Your task to perform on an android device: change the clock display to digital Image 0: 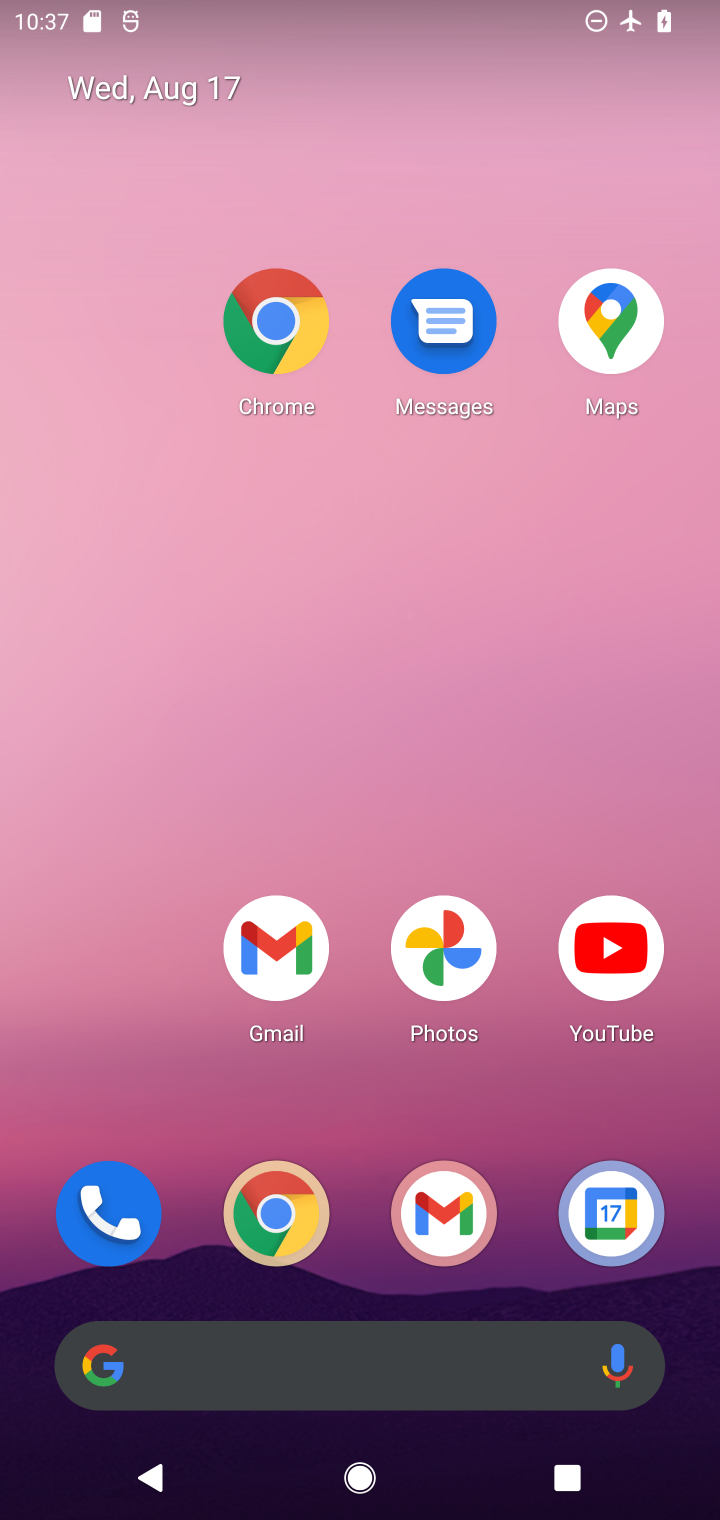
Step 0: drag from (354, 1295) to (387, 71)
Your task to perform on an android device: change the clock display to digital Image 1: 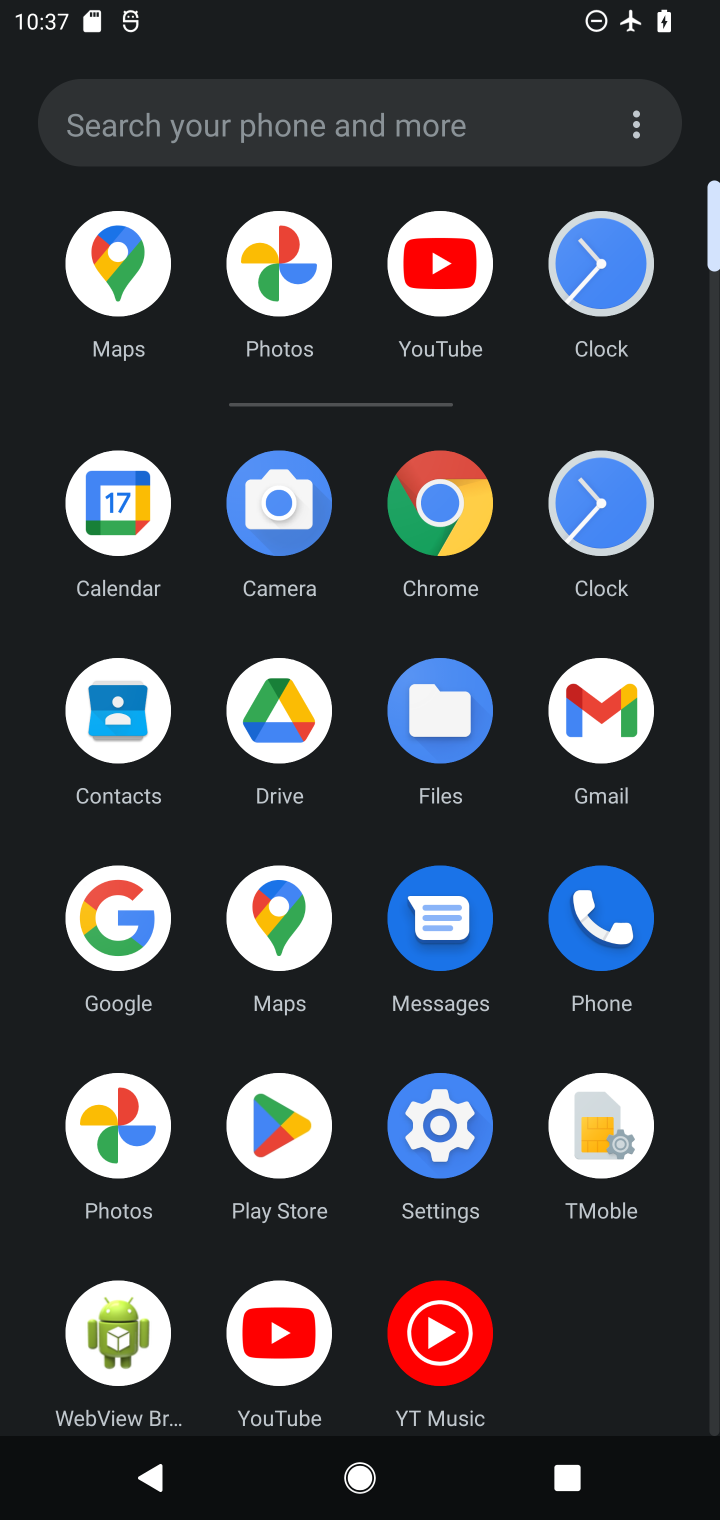
Step 1: click (565, 291)
Your task to perform on an android device: change the clock display to digital Image 2: 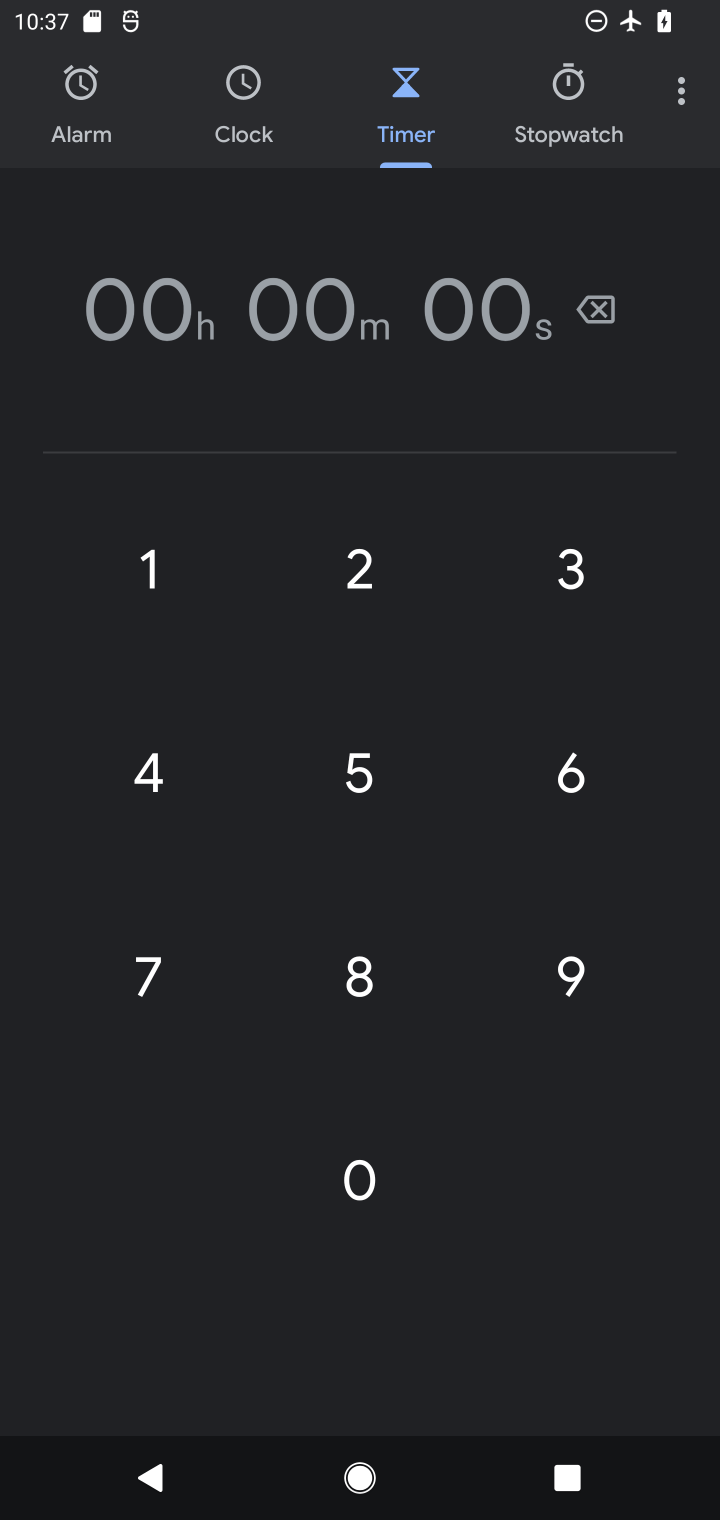
Step 2: click (660, 93)
Your task to perform on an android device: change the clock display to digital Image 3: 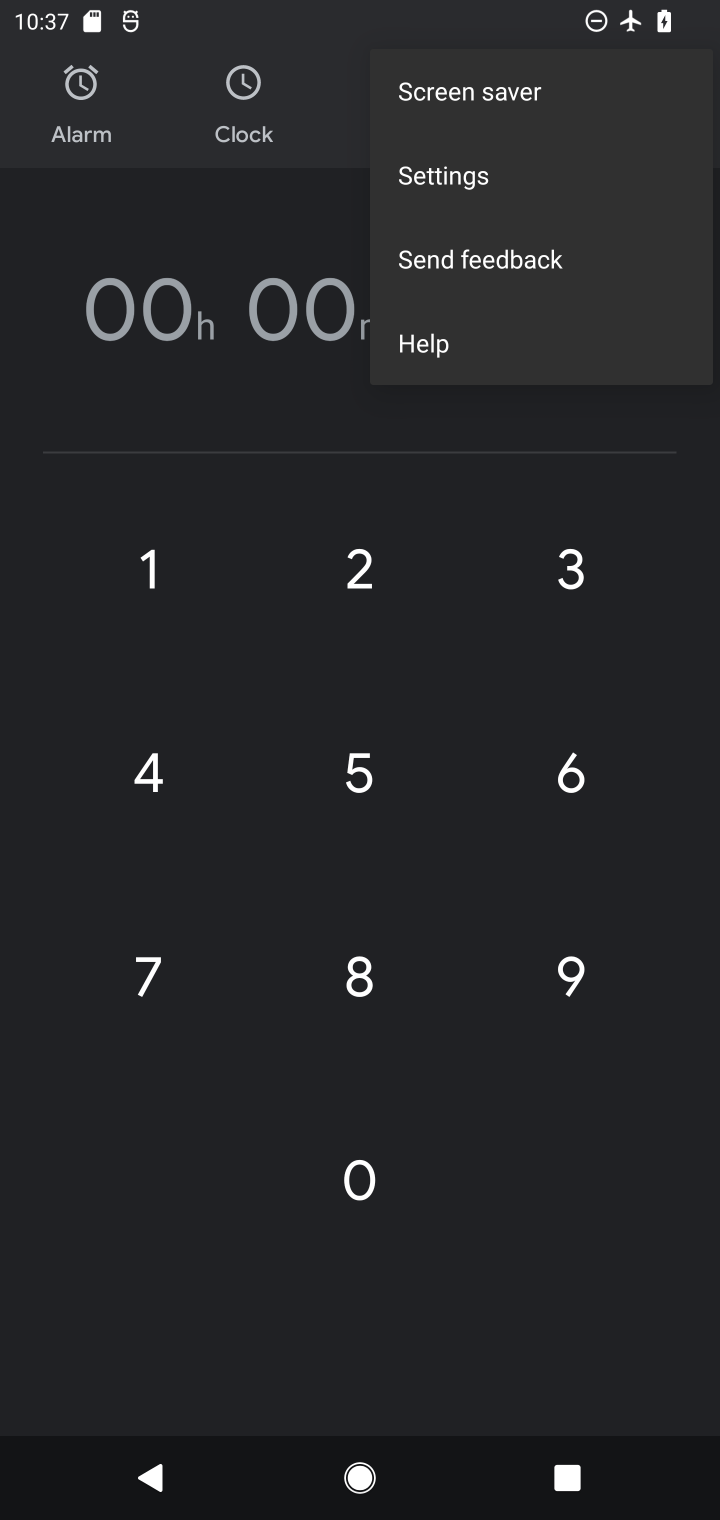
Step 3: click (531, 194)
Your task to perform on an android device: change the clock display to digital Image 4: 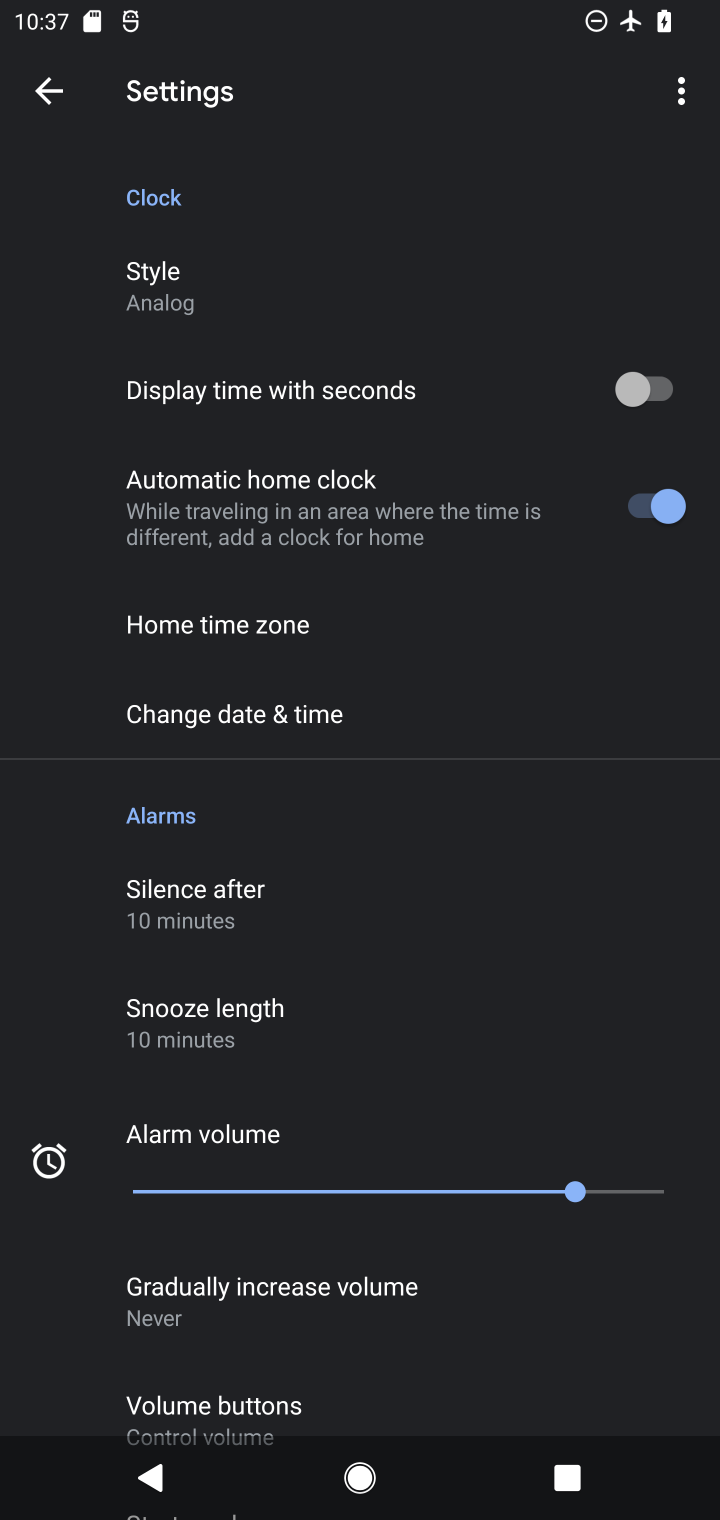
Step 4: click (199, 293)
Your task to perform on an android device: change the clock display to digital Image 5: 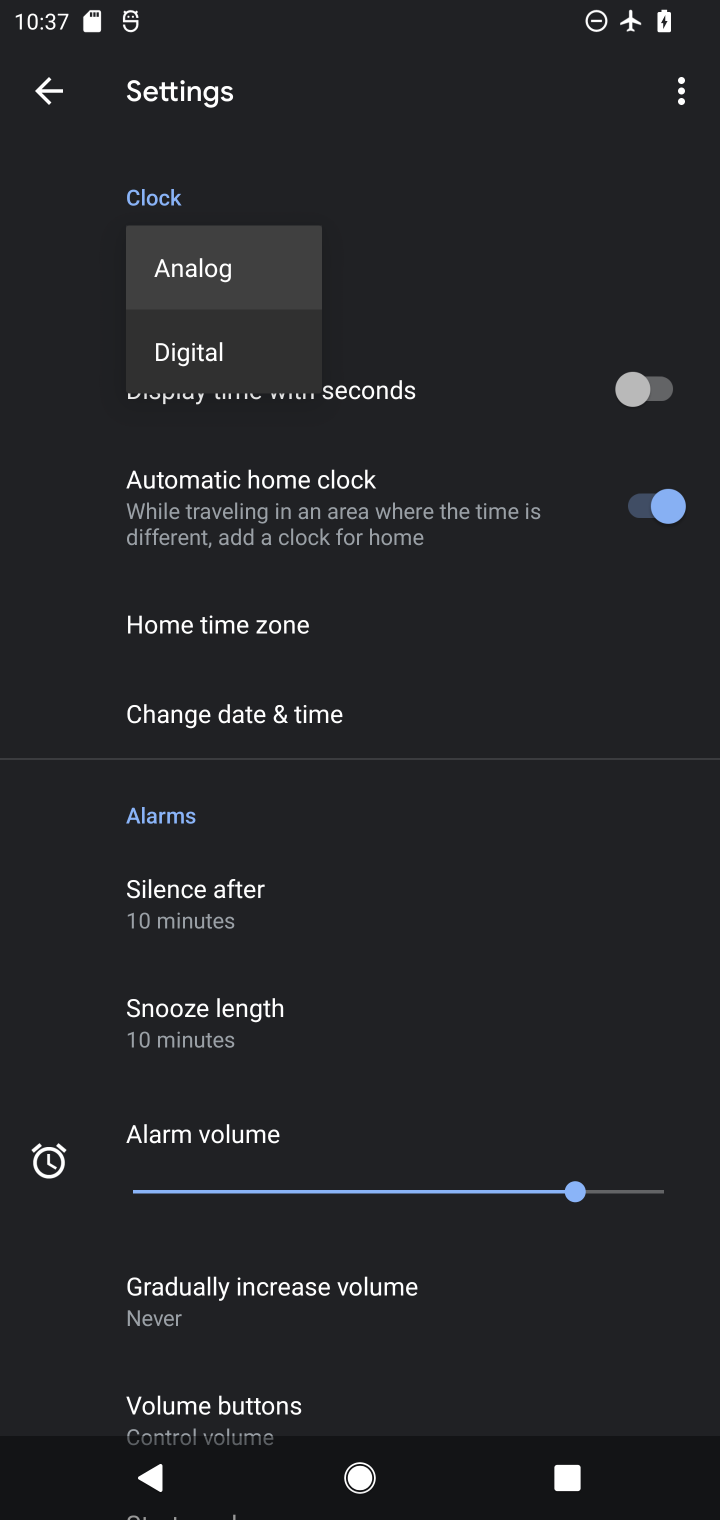
Step 5: click (228, 366)
Your task to perform on an android device: change the clock display to digital Image 6: 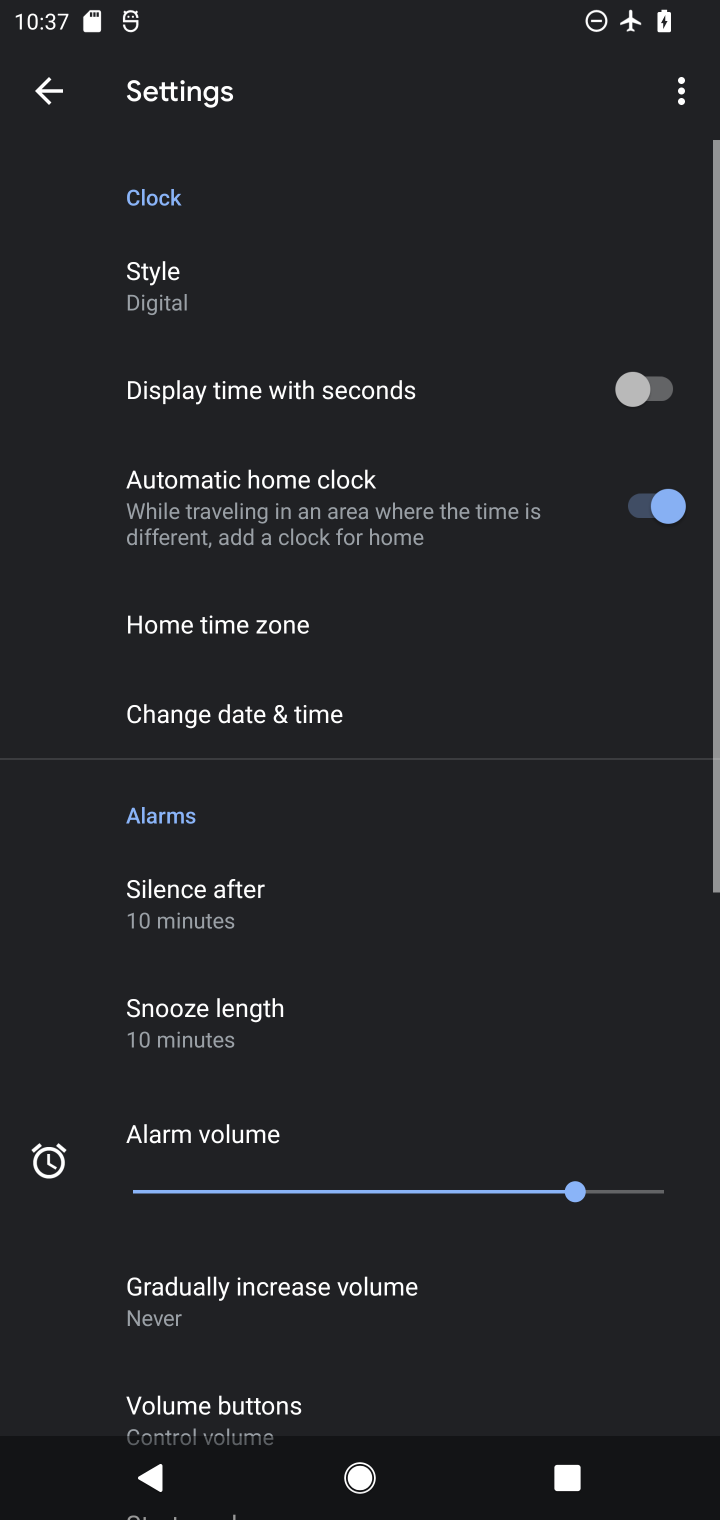
Step 6: task complete